Your task to perform on an android device: clear history in the chrome app Image 0: 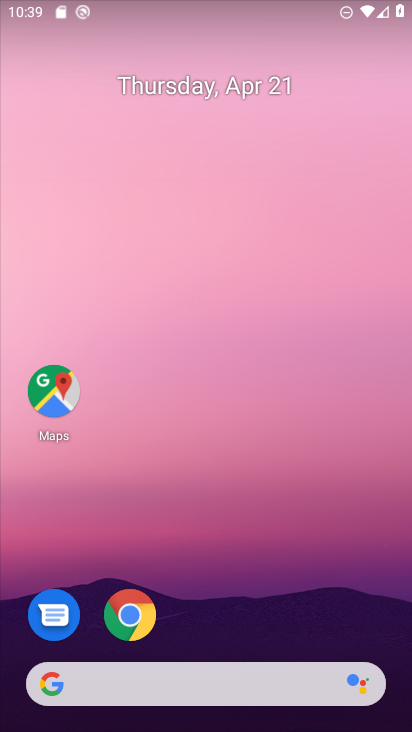
Step 0: click (131, 614)
Your task to perform on an android device: clear history in the chrome app Image 1: 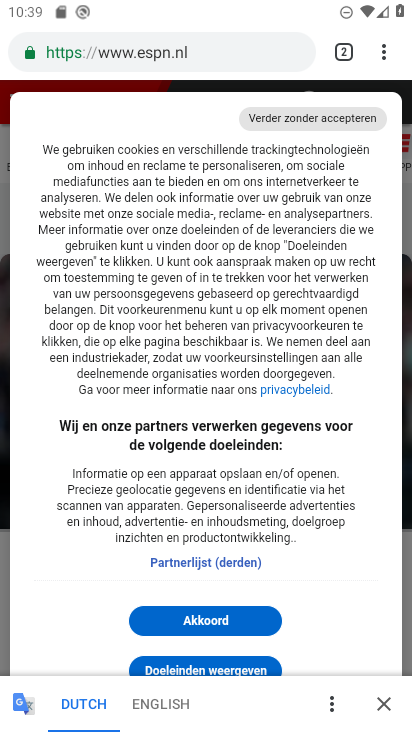
Step 1: drag from (385, 51) to (214, 296)
Your task to perform on an android device: clear history in the chrome app Image 2: 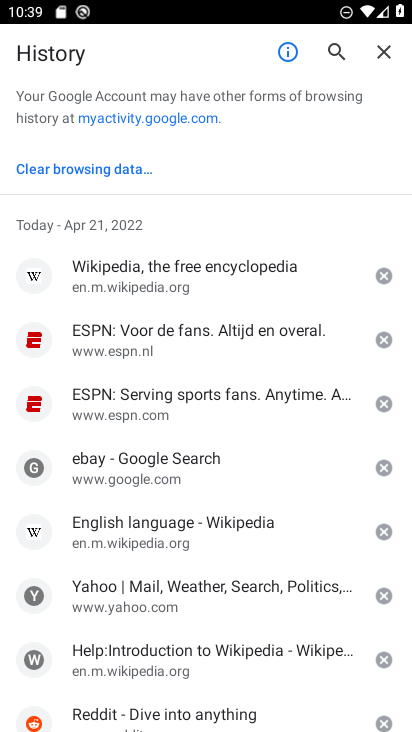
Step 2: click (96, 170)
Your task to perform on an android device: clear history in the chrome app Image 3: 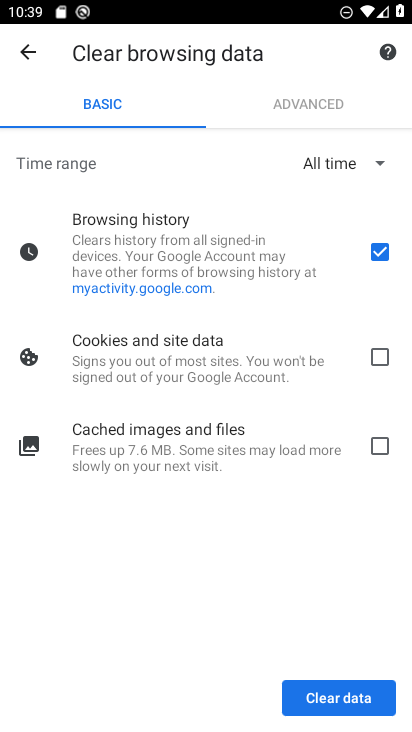
Step 3: click (333, 696)
Your task to perform on an android device: clear history in the chrome app Image 4: 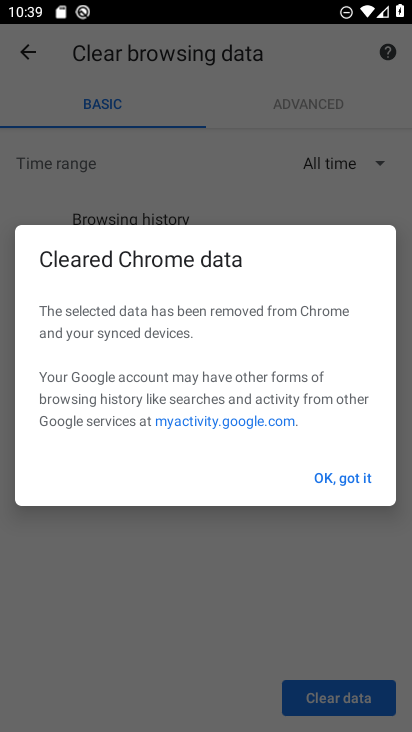
Step 4: click (347, 478)
Your task to perform on an android device: clear history in the chrome app Image 5: 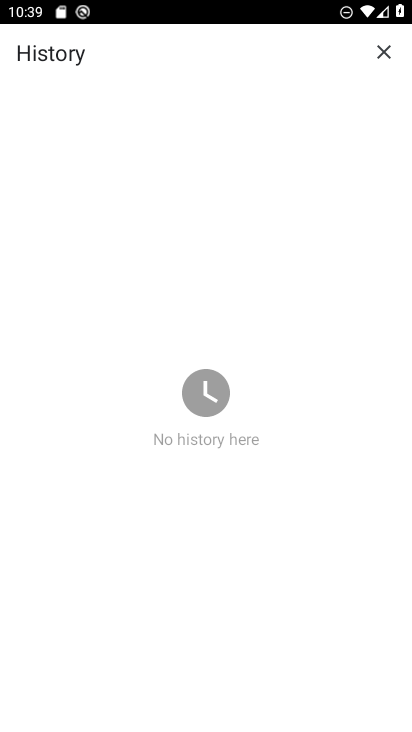
Step 5: task complete